Your task to perform on an android device: Search for "razer nari" on costco, select the first entry, and add it to the cart. Image 0: 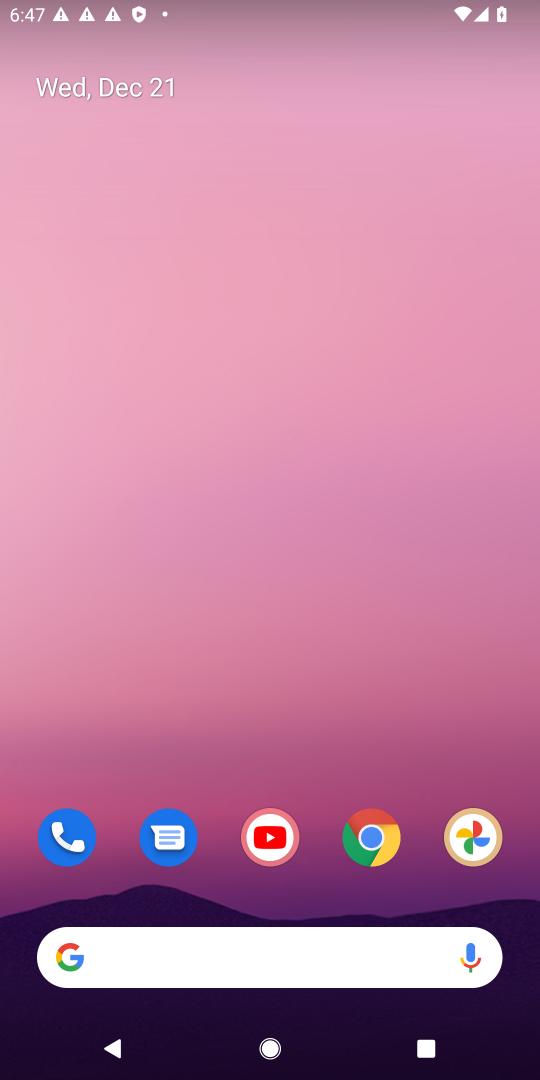
Step 0: drag from (261, 851) to (211, 208)
Your task to perform on an android device: Search for "razer nari" on costco, select the first entry, and add it to the cart. Image 1: 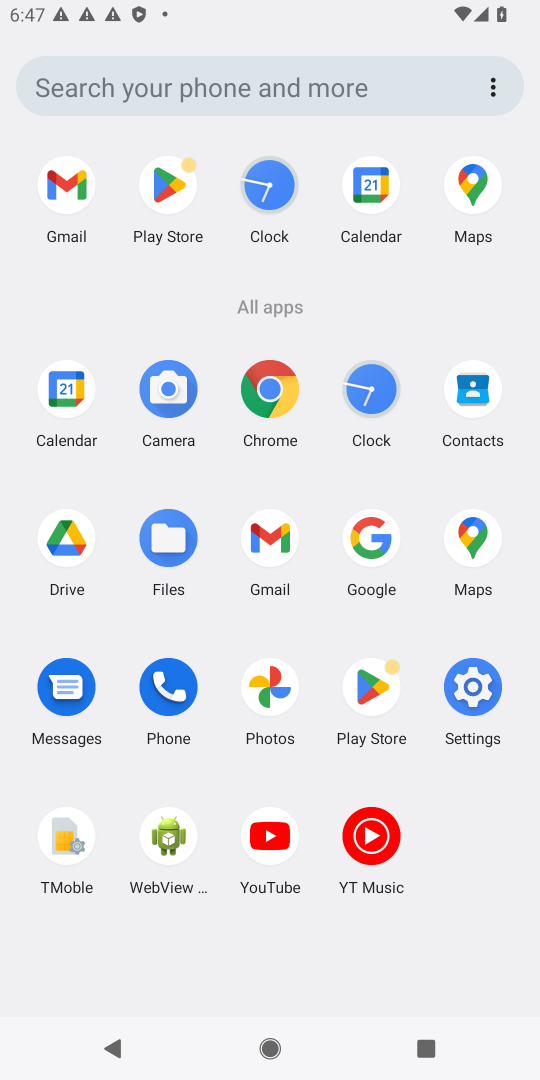
Step 1: click (370, 545)
Your task to perform on an android device: Search for "razer nari" on costco, select the first entry, and add it to the cart. Image 2: 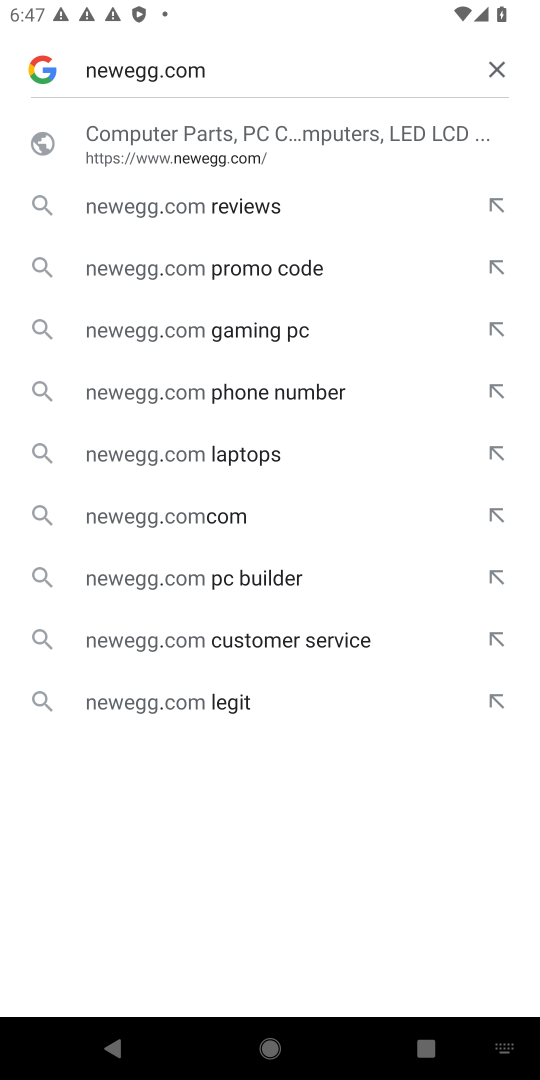
Step 2: click (512, 53)
Your task to perform on an android device: Search for "razer nari" on costco, select the first entry, and add it to the cart. Image 3: 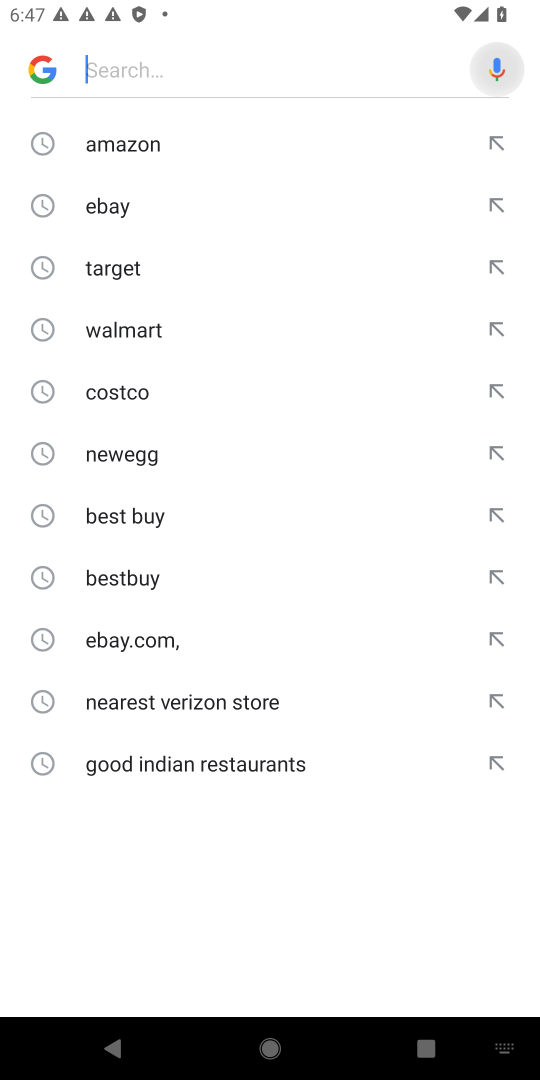
Step 3: click (509, 68)
Your task to perform on an android device: Search for "razer nari" on costco, select the first entry, and add it to the cart. Image 4: 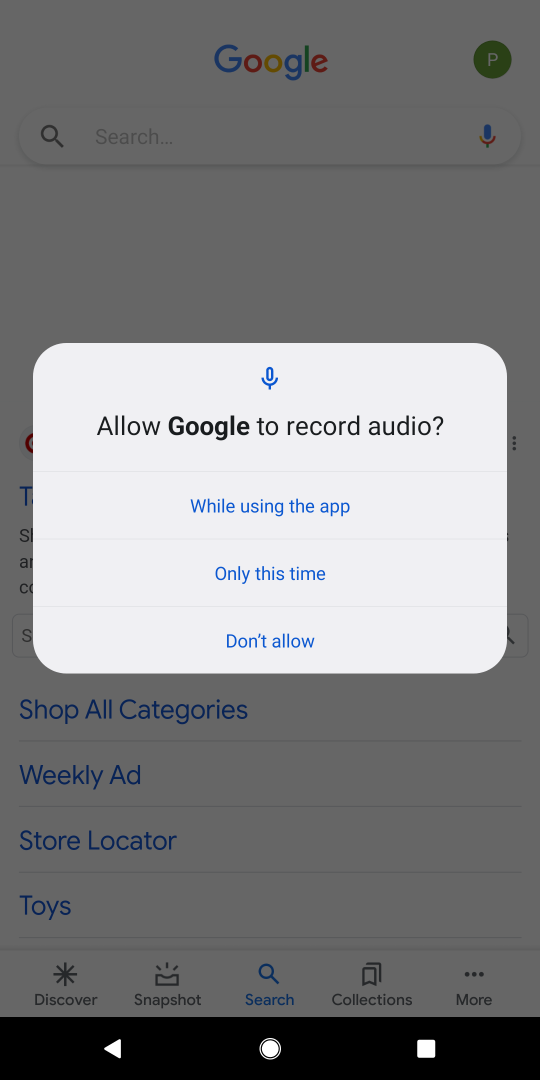
Step 4: type "costco"
Your task to perform on an android device: Search for "razer nari" on costco, select the first entry, and add it to the cart. Image 5: 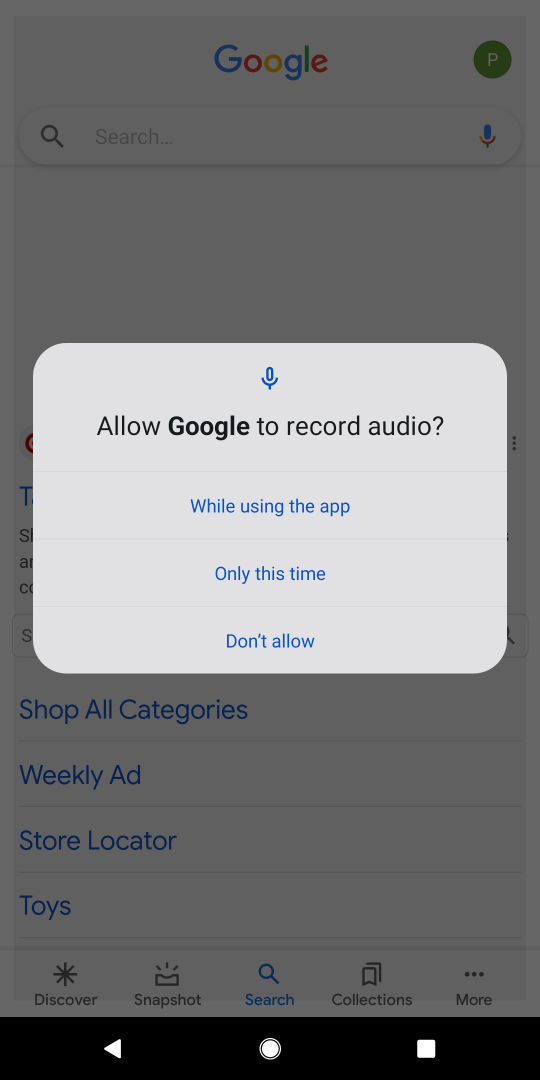
Step 5: task complete